Your task to perform on an android device: Check the news Image 0: 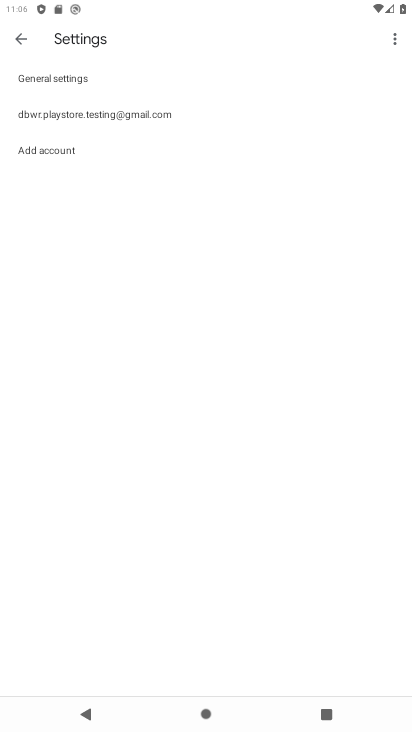
Step 0: press home button
Your task to perform on an android device: Check the news Image 1: 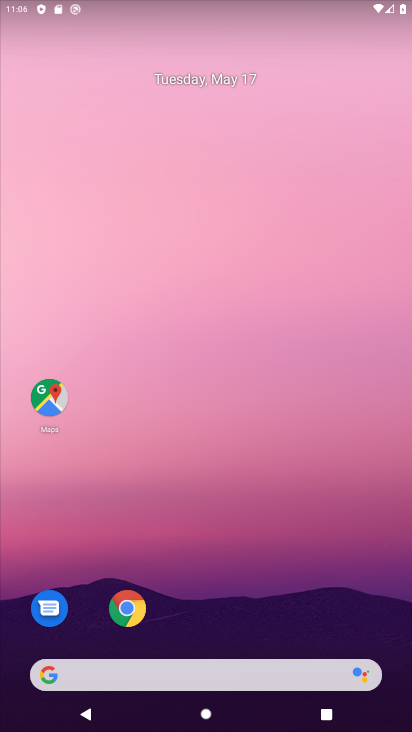
Step 1: task complete